Your task to perform on an android device: add a label to a message in the gmail app Image 0: 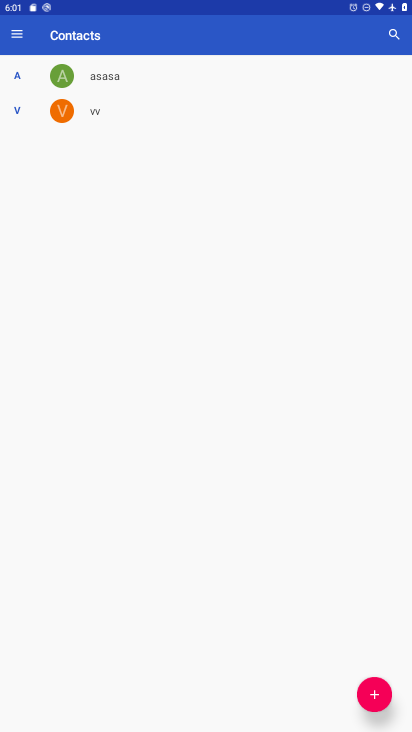
Step 0: press home button
Your task to perform on an android device: add a label to a message in the gmail app Image 1: 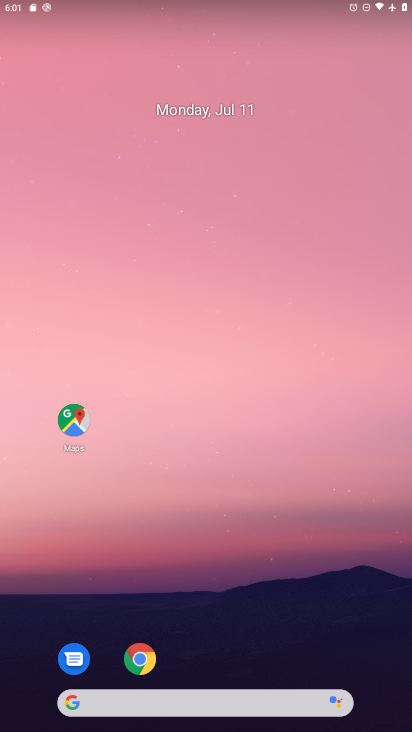
Step 1: drag from (367, 661) to (356, 186)
Your task to perform on an android device: add a label to a message in the gmail app Image 2: 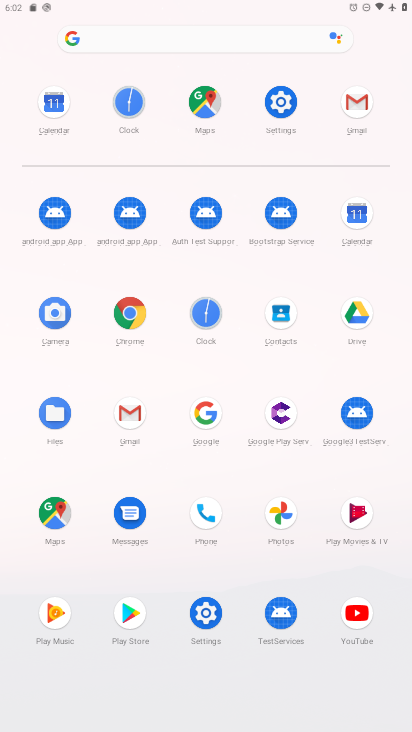
Step 2: click (131, 408)
Your task to perform on an android device: add a label to a message in the gmail app Image 3: 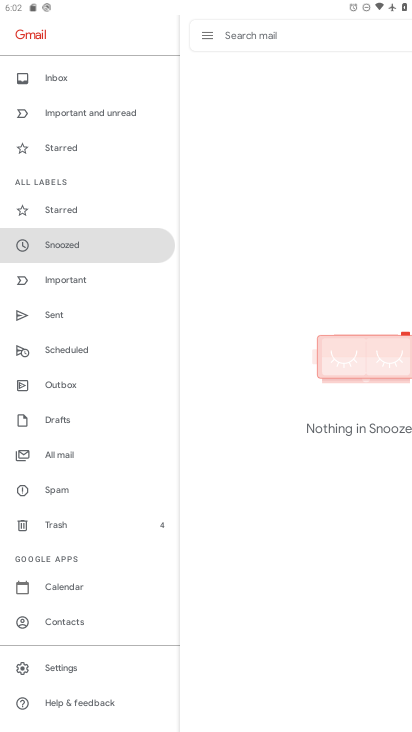
Step 3: click (63, 454)
Your task to perform on an android device: add a label to a message in the gmail app Image 4: 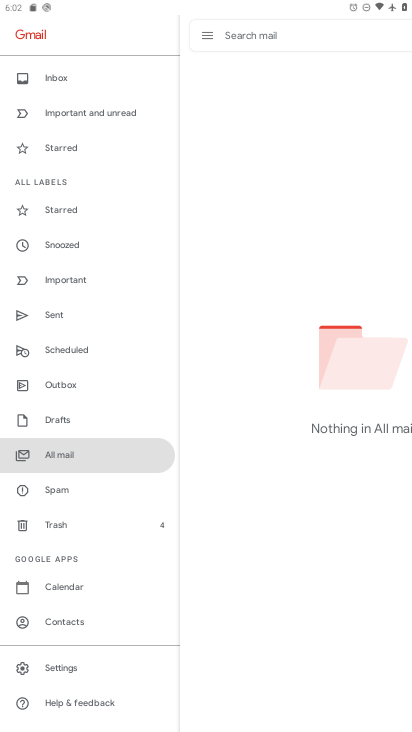
Step 4: task complete